Your task to perform on an android device: Go to Amazon Image 0: 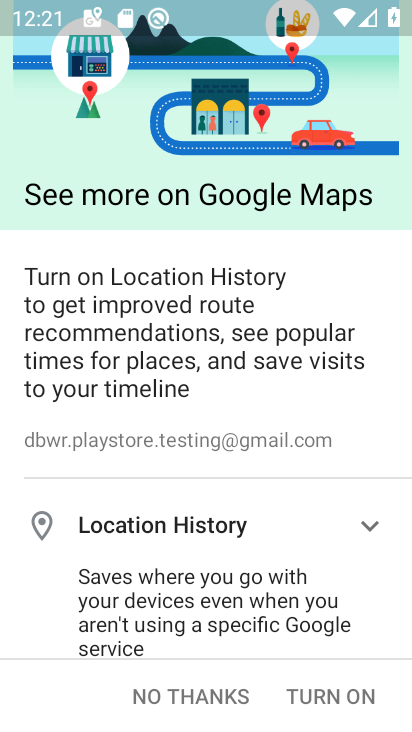
Step 0: press home button
Your task to perform on an android device: Go to Amazon Image 1: 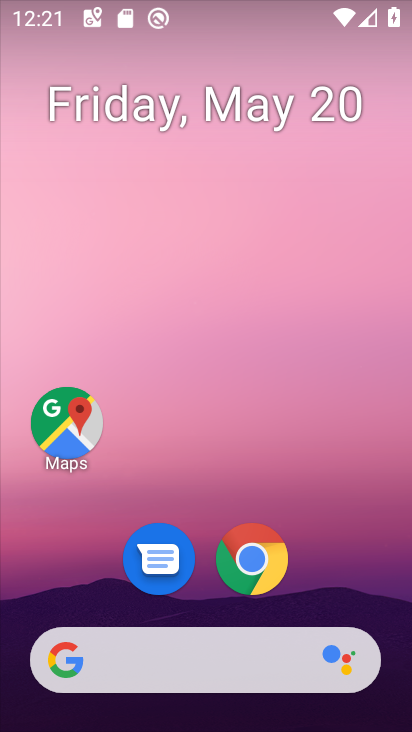
Step 1: click (273, 572)
Your task to perform on an android device: Go to Amazon Image 2: 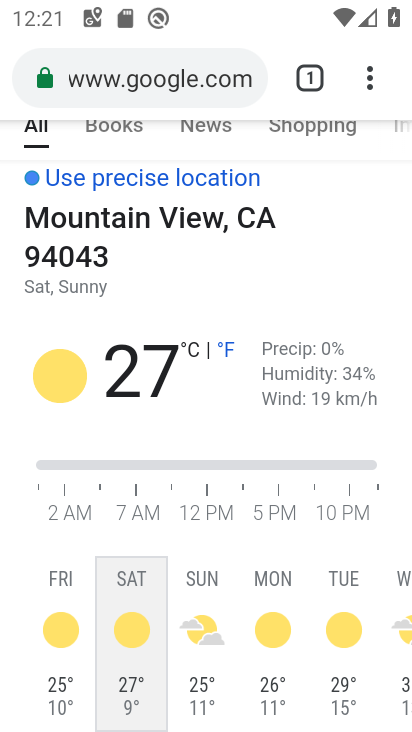
Step 2: click (311, 82)
Your task to perform on an android device: Go to Amazon Image 3: 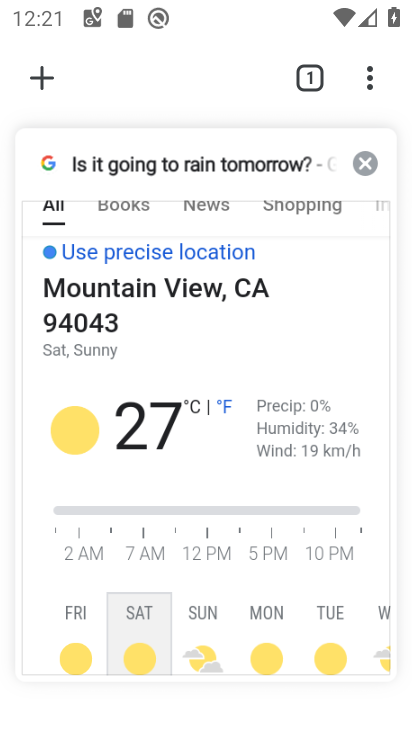
Step 3: click (47, 83)
Your task to perform on an android device: Go to Amazon Image 4: 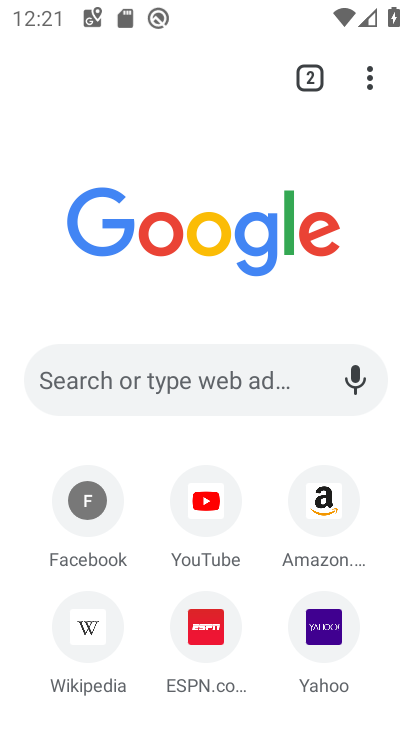
Step 4: click (332, 501)
Your task to perform on an android device: Go to Amazon Image 5: 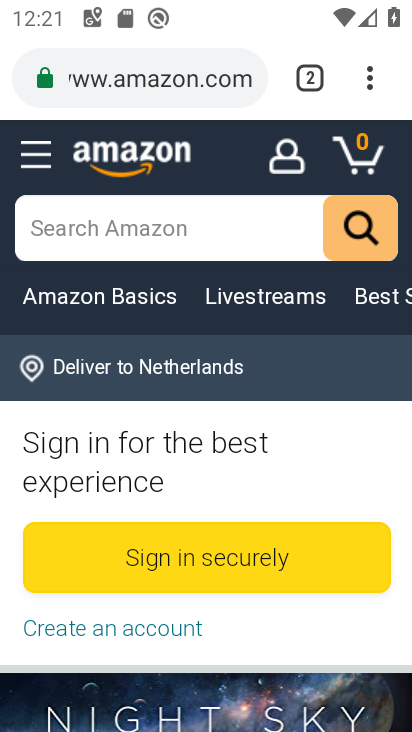
Step 5: task complete